Your task to perform on an android device: Go to ESPN.com Image 0: 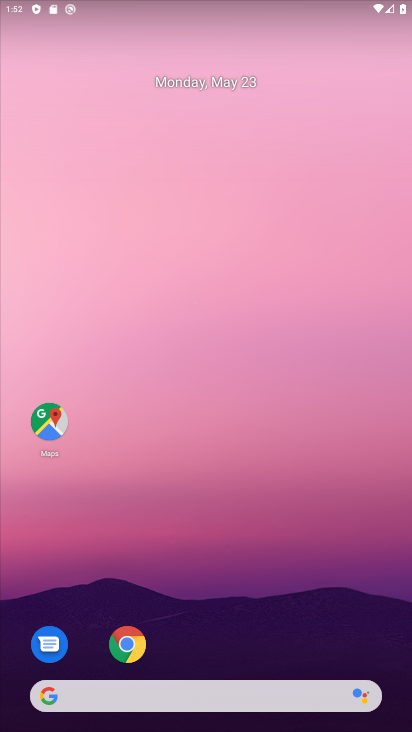
Step 0: drag from (279, 469) to (263, 53)
Your task to perform on an android device: Go to ESPN.com Image 1: 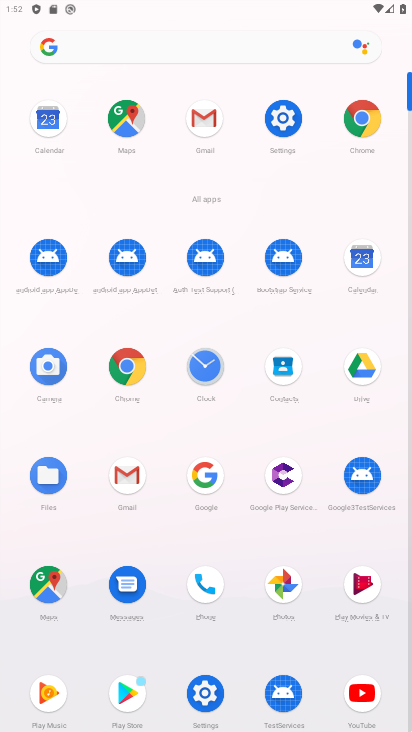
Step 1: click (377, 115)
Your task to perform on an android device: Go to ESPN.com Image 2: 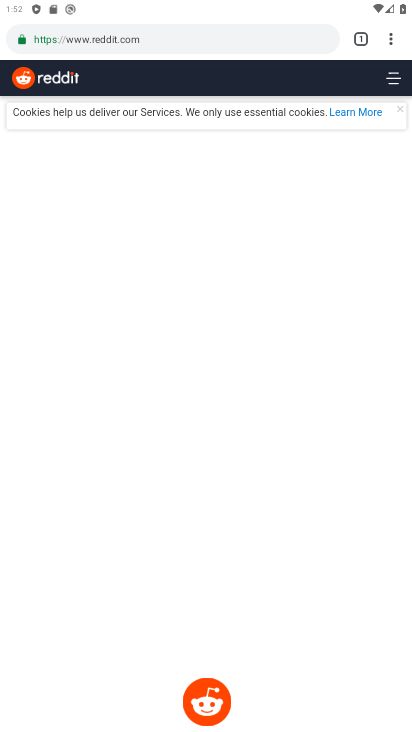
Step 2: click (157, 32)
Your task to perform on an android device: Go to ESPN.com Image 3: 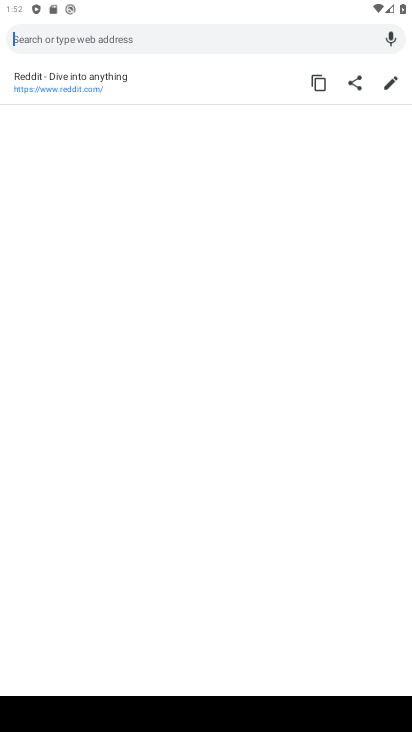
Step 3: type "espn"
Your task to perform on an android device: Go to ESPN.com Image 4: 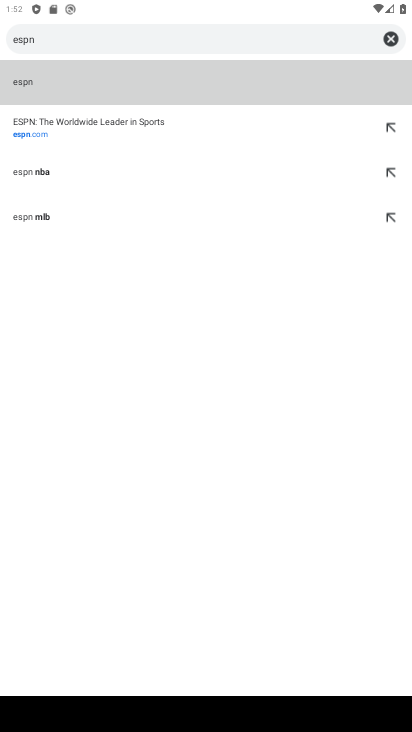
Step 4: click (39, 121)
Your task to perform on an android device: Go to ESPN.com Image 5: 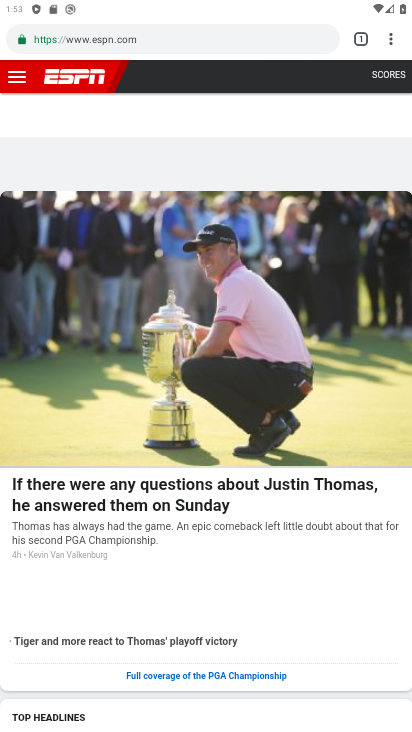
Step 5: task complete